Your task to perform on an android device: Search for Italian restaurants on Maps Image 0: 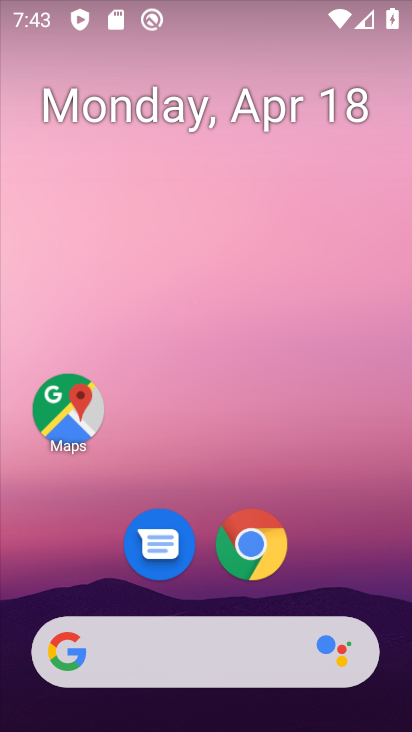
Step 0: click (64, 413)
Your task to perform on an android device: Search for Italian restaurants on Maps Image 1: 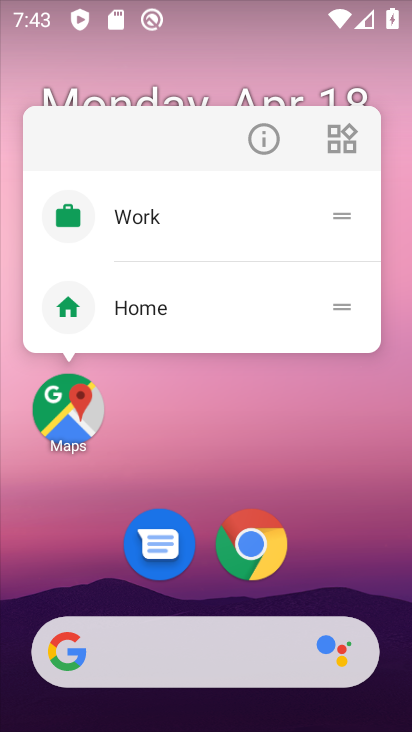
Step 1: click (64, 413)
Your task to perform on an android device: Search for Italian restaurants on Maps Image 2: 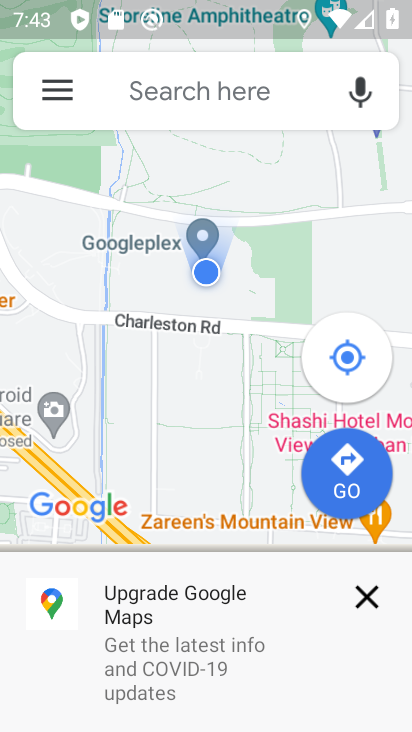
Step 2: click (103, 97)
Your task to perform on an android device: Search for Italian restaurants on Maps Image 3: 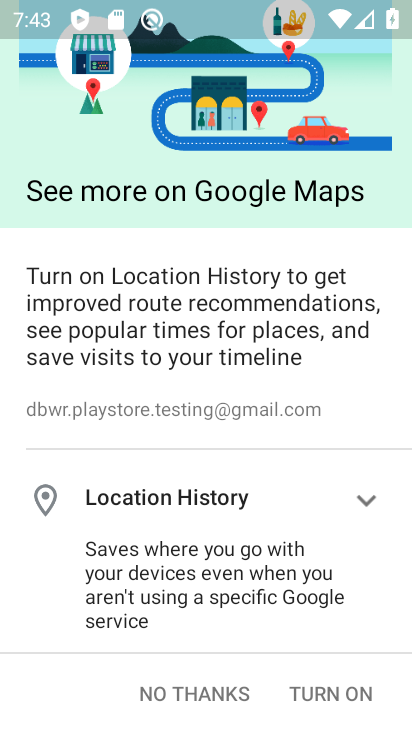
Step 3: click (170, 686)
Your task to perform on an android device: Search for Italian restaurants on Maps Image 4: 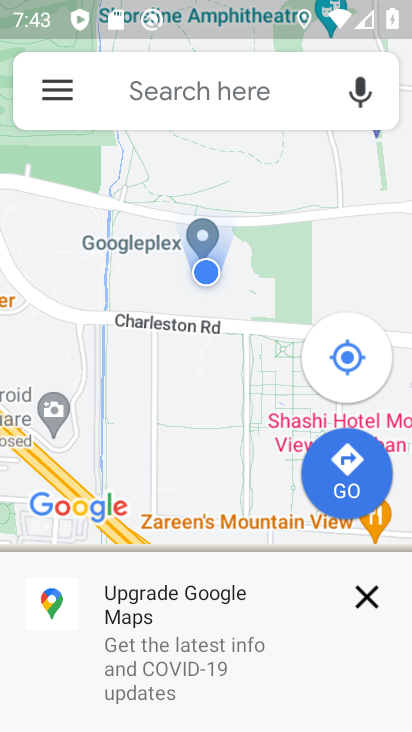
Step 4: click (135, 92)
Your task to perform on an android device: Search for Italian restaurants on Maps Image 5: 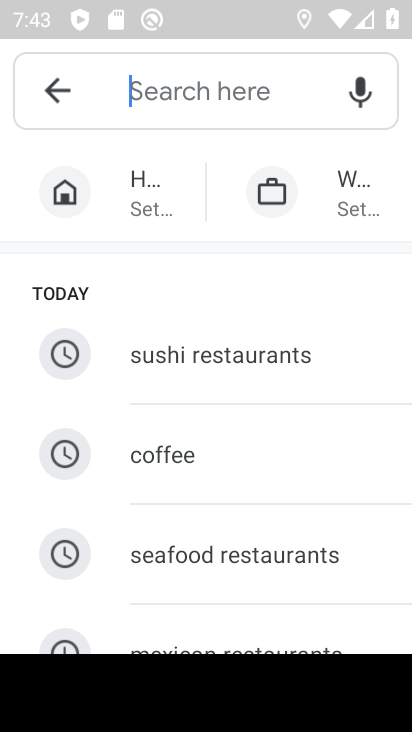
Step 5: type "italian restaurant"
Your task to perform on an android device: Search for Italian restaurants on Maps Image 6: 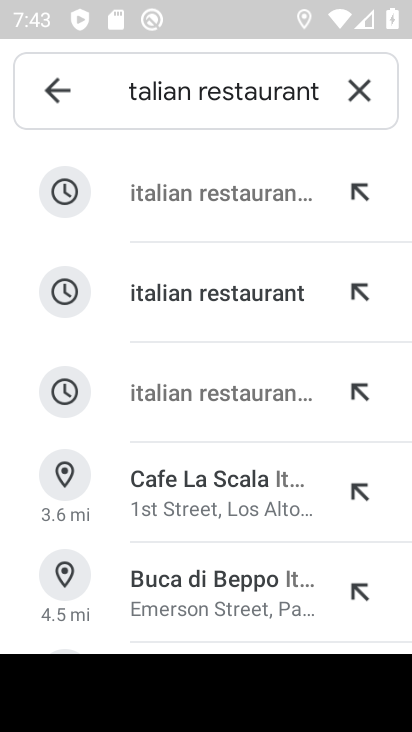
Step 6: click (170, 198)
Your task to perform on an android device: Search for Italian restaurants on Maps Image 7: 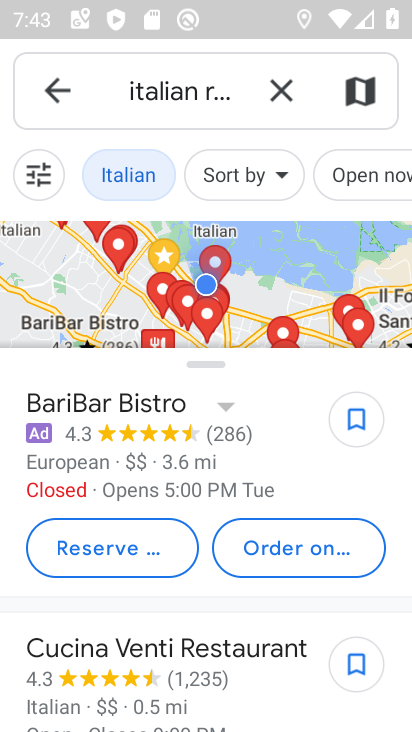
Step 7: task complete